Your task to perform on an android device: Add "logitech g pro" to the cart on bestbuy.com, then select checkout. Image 0: 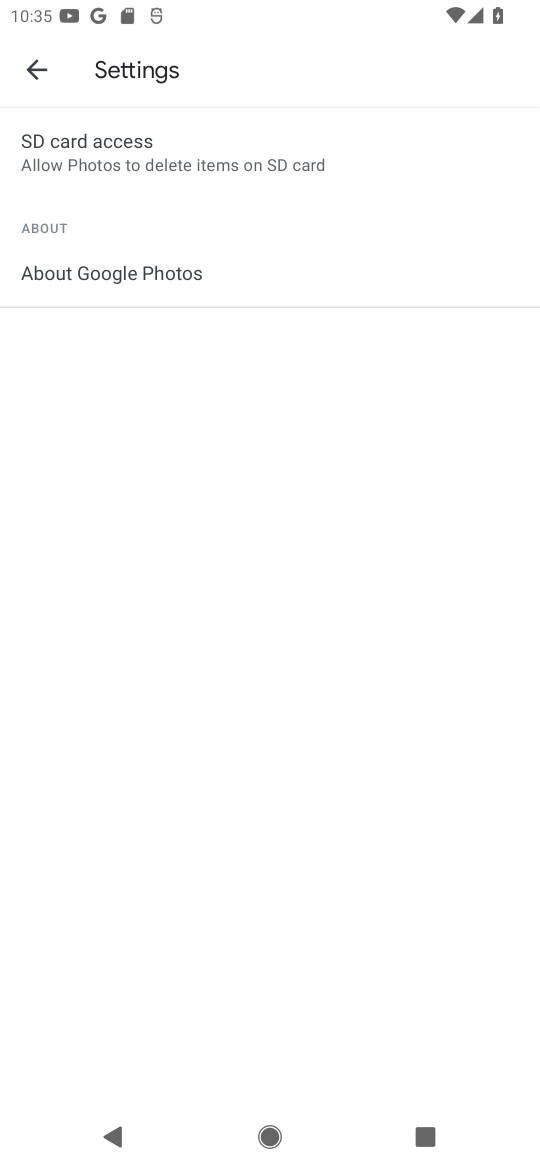
Step 0: press home button
Your task to perform on an android device: Add "logitech g pro" to the cart on bestbuy.com, then select checkout. Image 1: 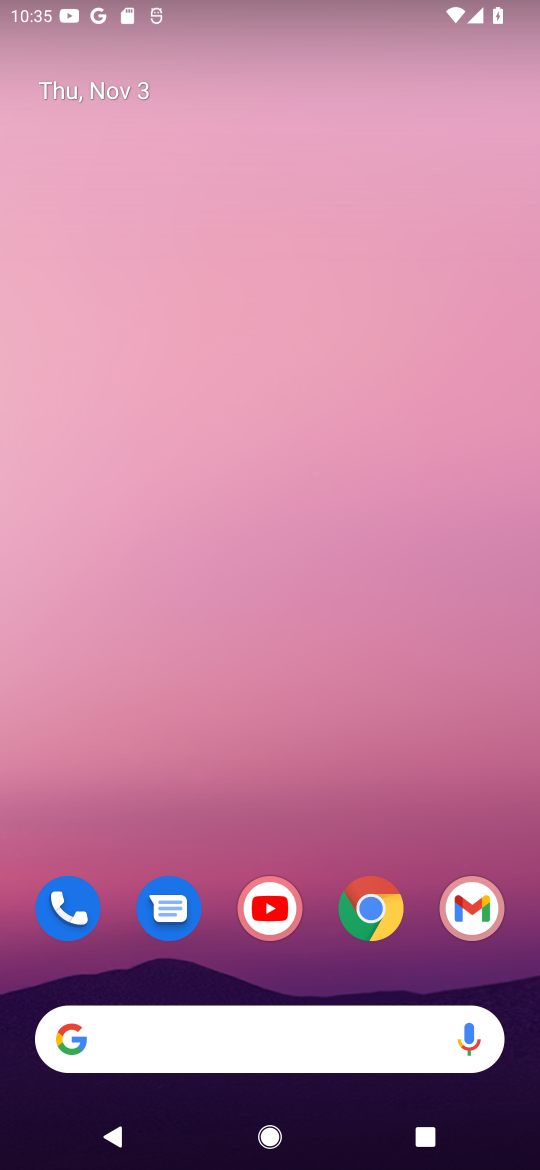
Step 1: click (364, 913)
Your task to perform on an android device: Add "logitech g pro" to the cart on bestbuy.com, then select checkout. Image 2: 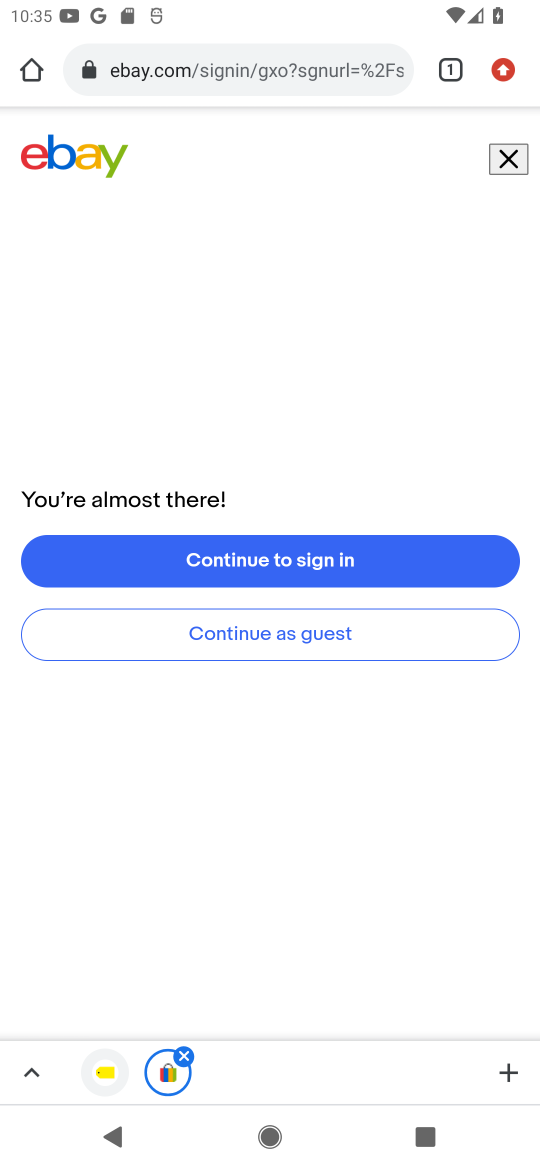
Step 2: click (40, 77)
Your task to perform on an android device: Add "logitech g pro" to the cart on bestbuy.com, then select checkout. Image 3: 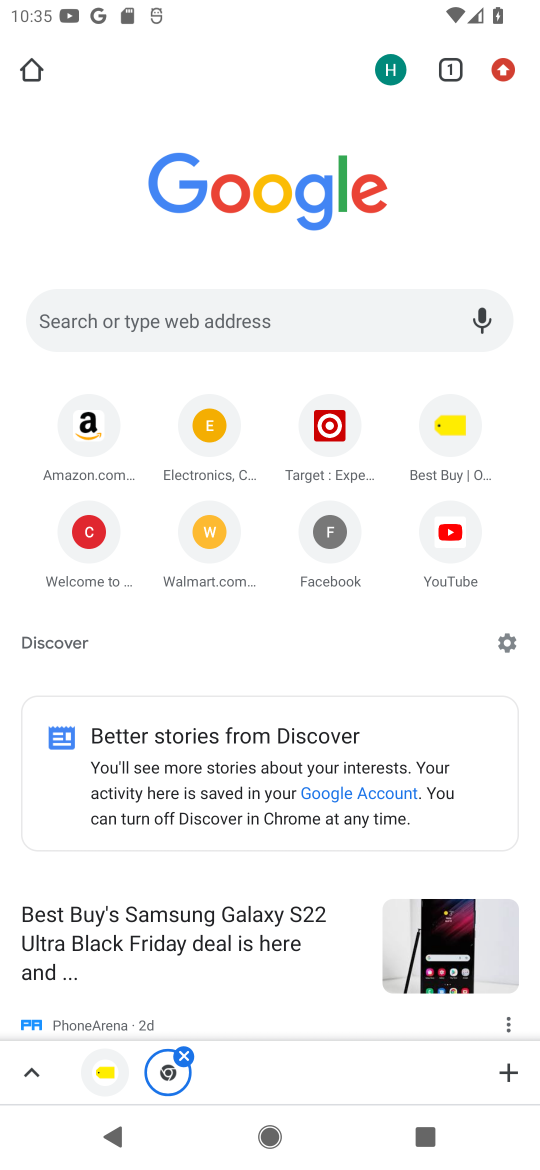
Step 3: click (386, 316)
Your task to perform on an android device: Add "logitech g pro" to the cart on bestbuy.com, then select checkout. Image 4: 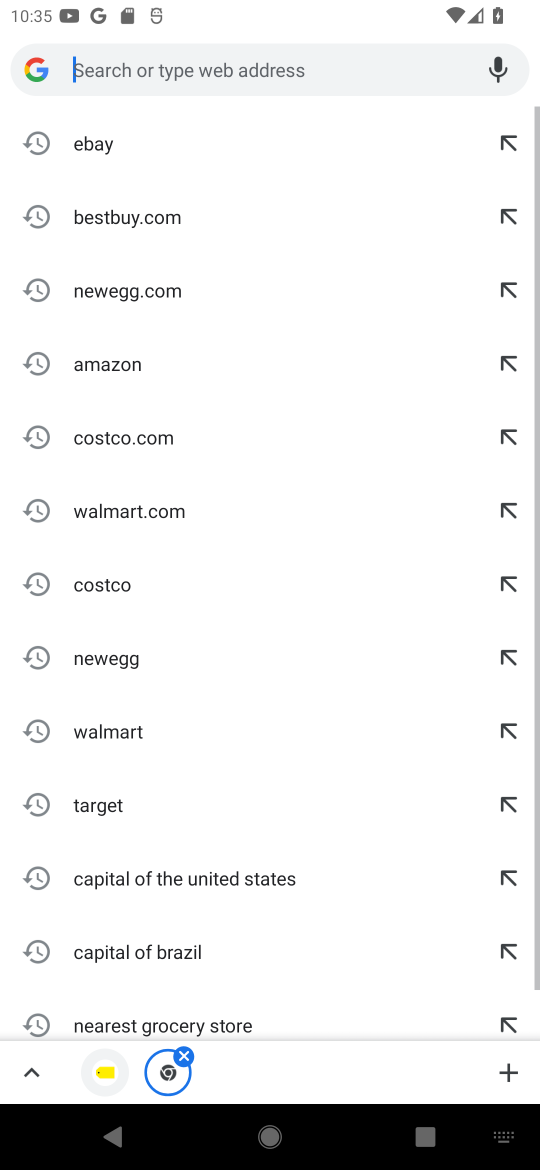
Step 4: click (134, 210)
Your task to perform on an android device: Add "logitech g pro" to the cart on bestbuy.com, then select checkout. Image 5: 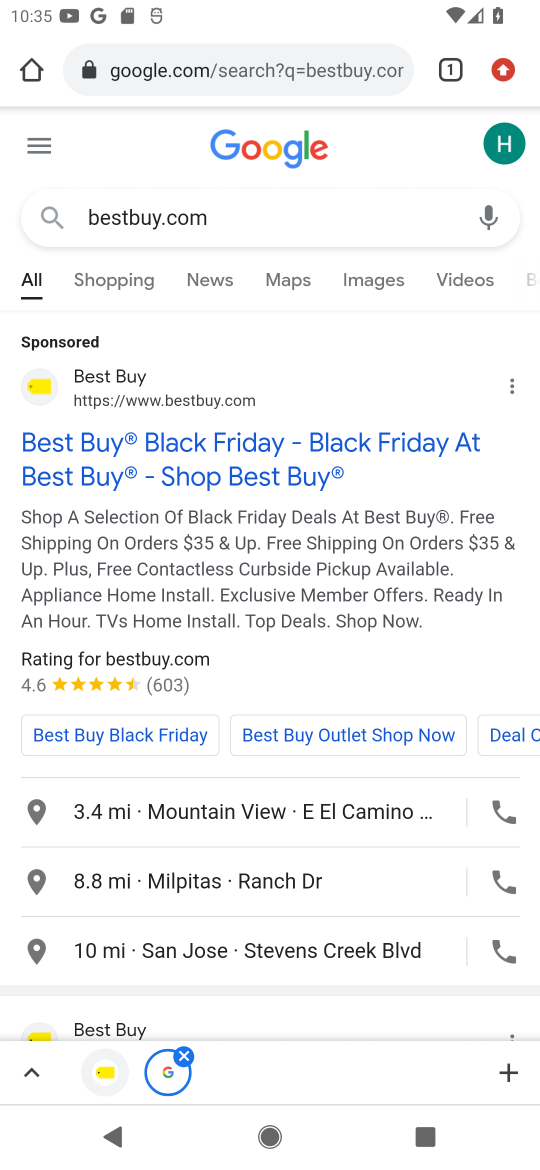
Step 5: click (217, 390)
Your task to perform on an android device: Add "logitech g pro" to the cart on bestbuy.com, then select checkout. Image 6: 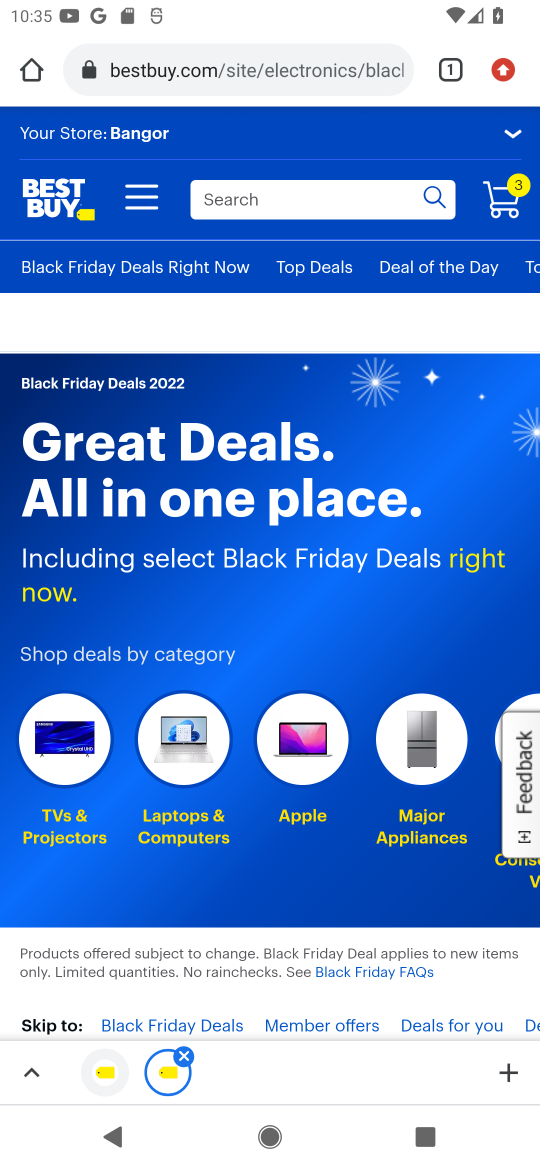
Step 6: click (366, 190)
Your task to perform on an android device: Add "logitech g pro" to the cart on bestbuy.com, then select checkout. Image 7: 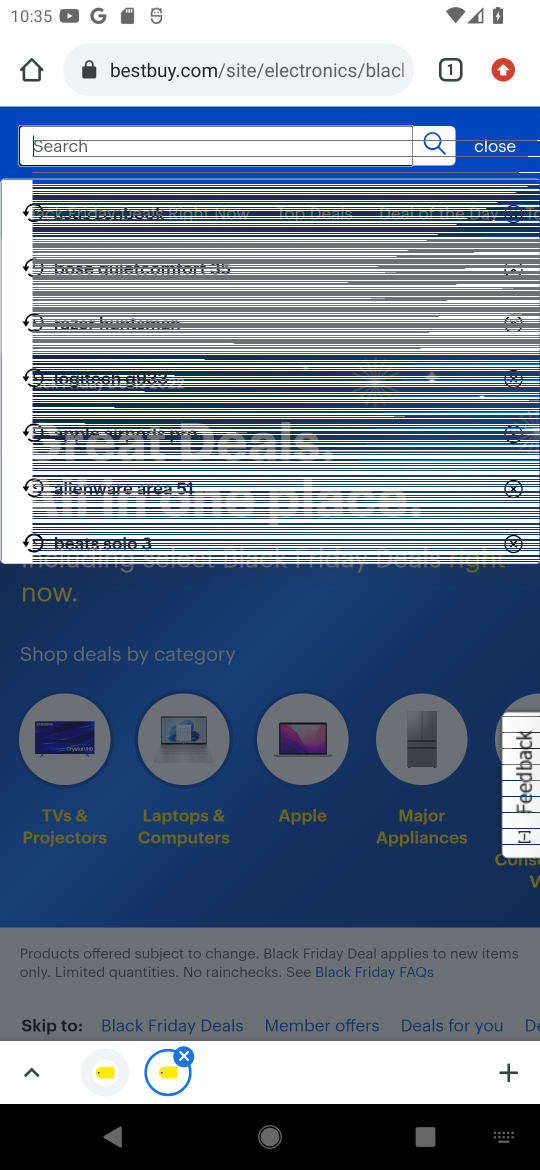
Step 7: press enter
Your task to perform on an android device: Add "logitech g pro" to the cart on bestbuy.com, then select checkout. Image 8: 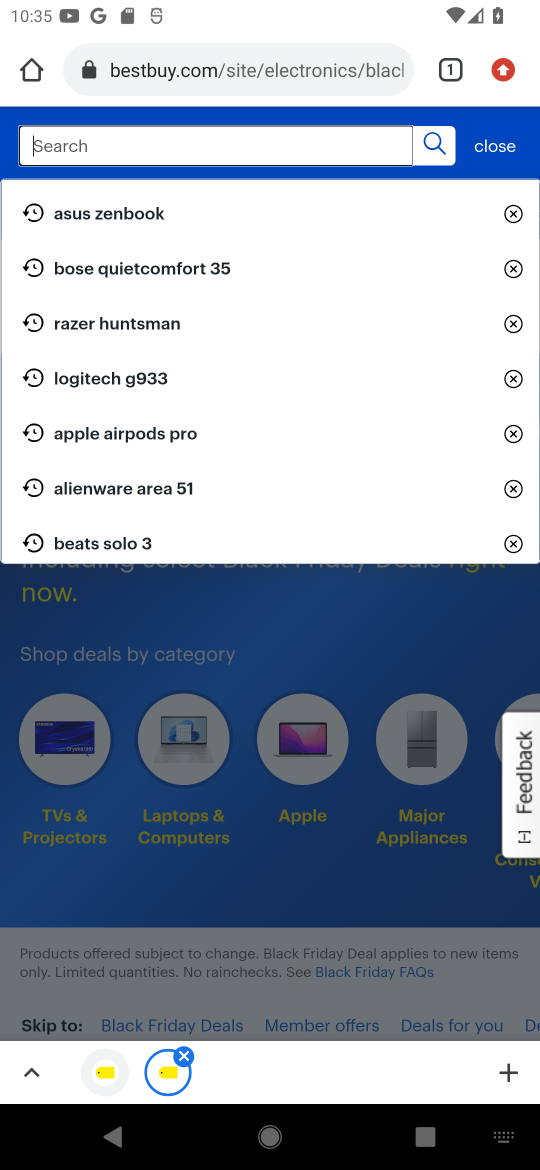
Step 8: type "logitech g pro"
Your task to perform on an android device: Add "logitech g pro" to the cart on bestbuy.com, then select checkout. Image 9: 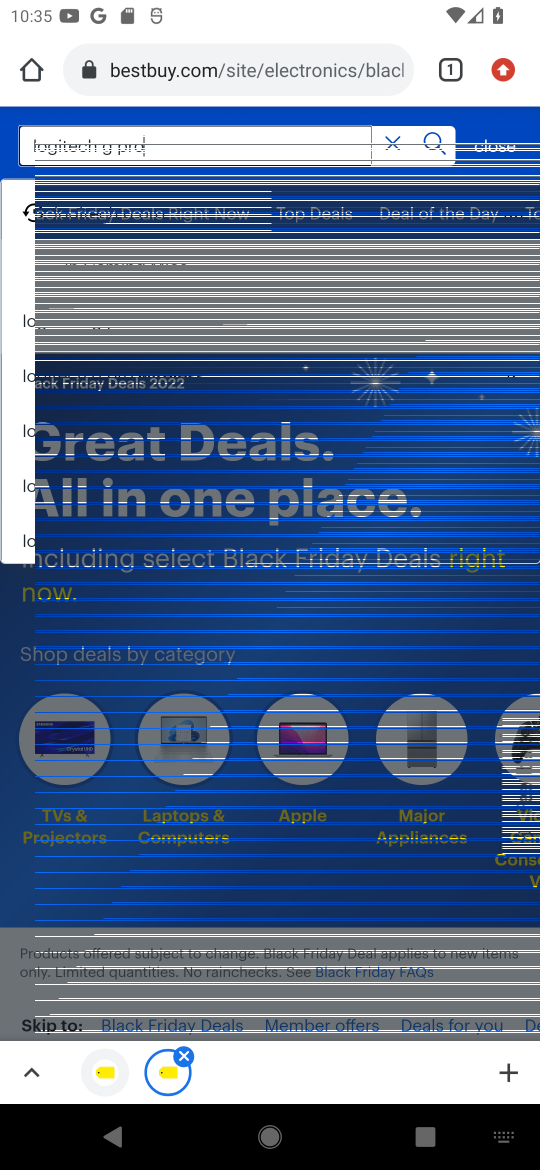
Step 9: click (153, 209)
Your task to perform on an android device: Add "logitech g pro" to the cart on bestbuy.com, then select checkout. Image 10: 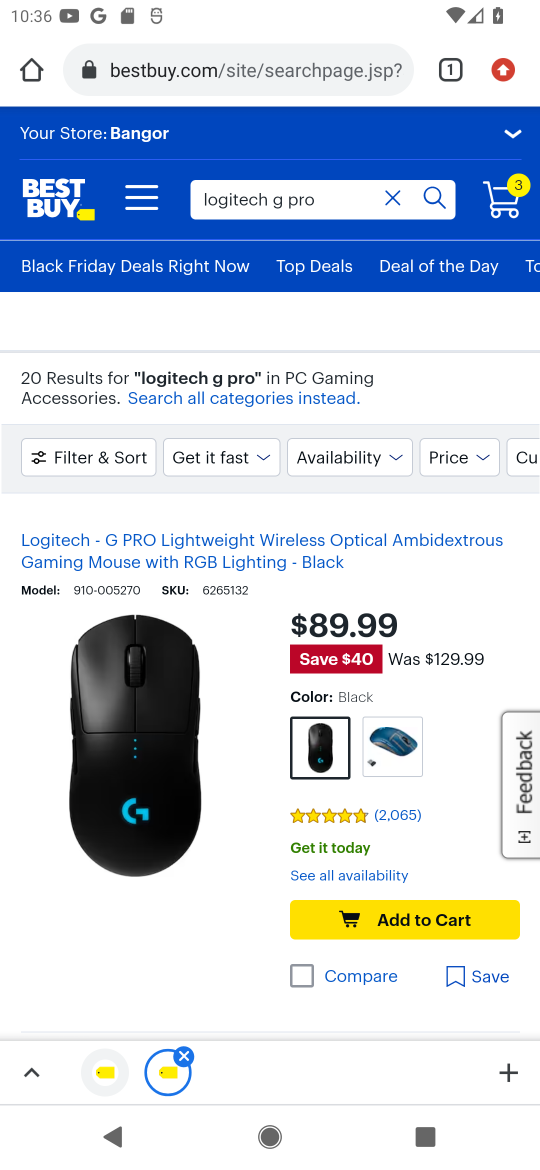
Step 10: click (153, 743)
Your task to perform on an android device: Add "logitech g pro" to the cart on bestbuy.com, then select checkout. Image 11: 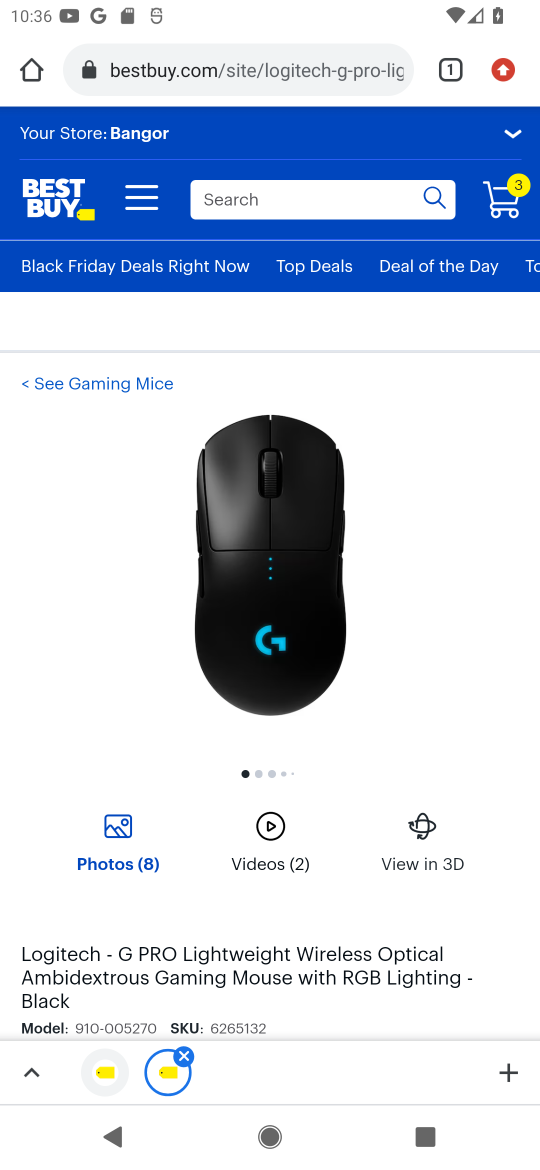
Step 11: drag from (414, 804) to (370, 406)
Your task to perform on an android device: Add "logitech g pro" to the cart on bestbuy.com, then select checkout. Image 12: 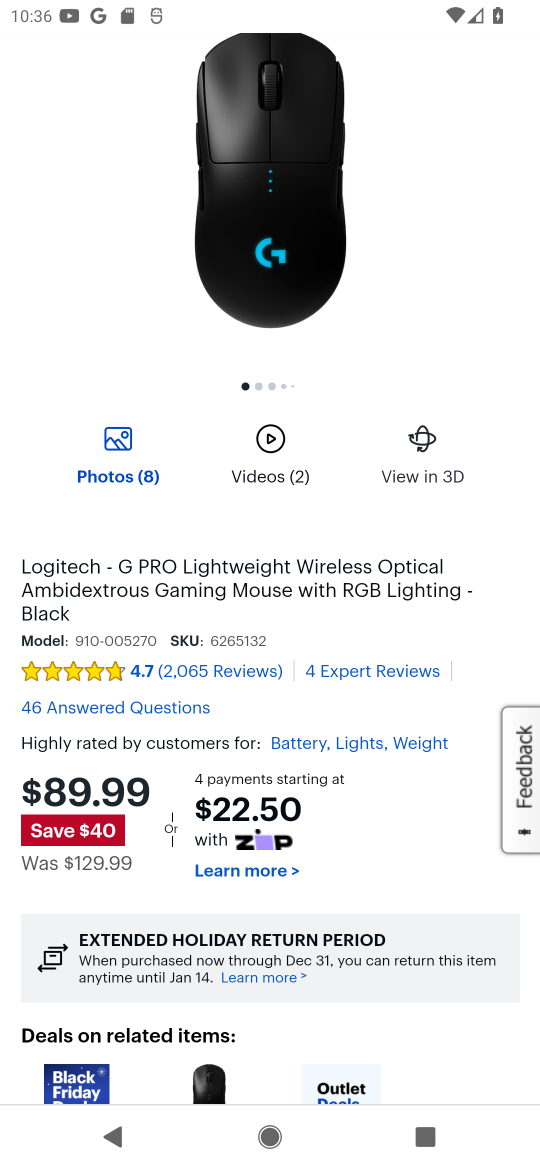
Step 12: drag from (335, 834) to (325, 344)
Your task to perform on an android device: Add "logitech g pro" to the cart on bestbuy.com, then select checkout. Image 13: 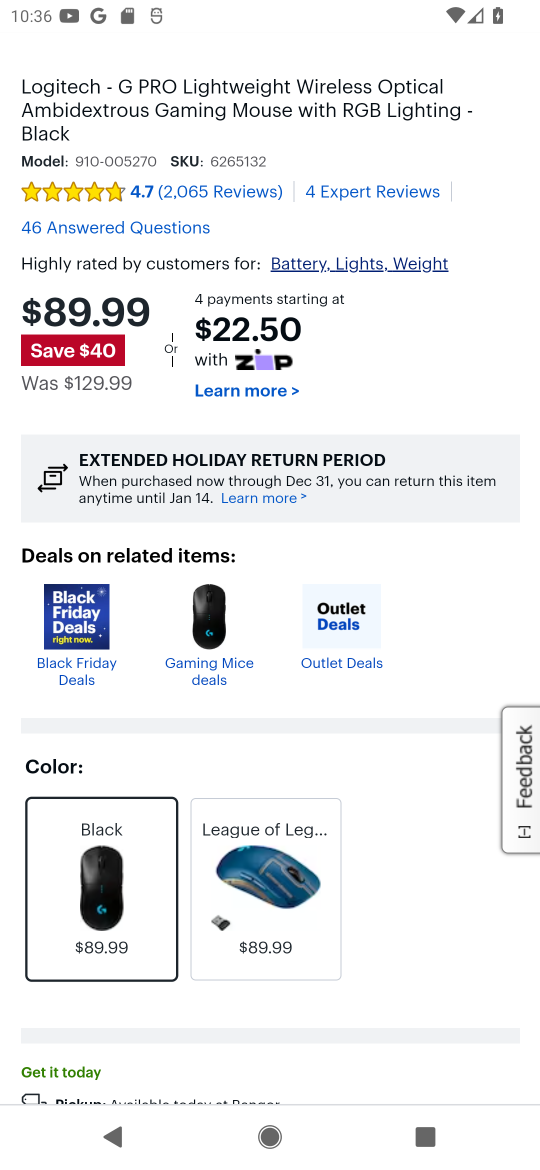
Step 13: drag from (361, 799) to (389, 328)
Your task to perform on an android device: Add "logitech g pro" to the cart on bestbuy.com, then select checkout. Image 14: 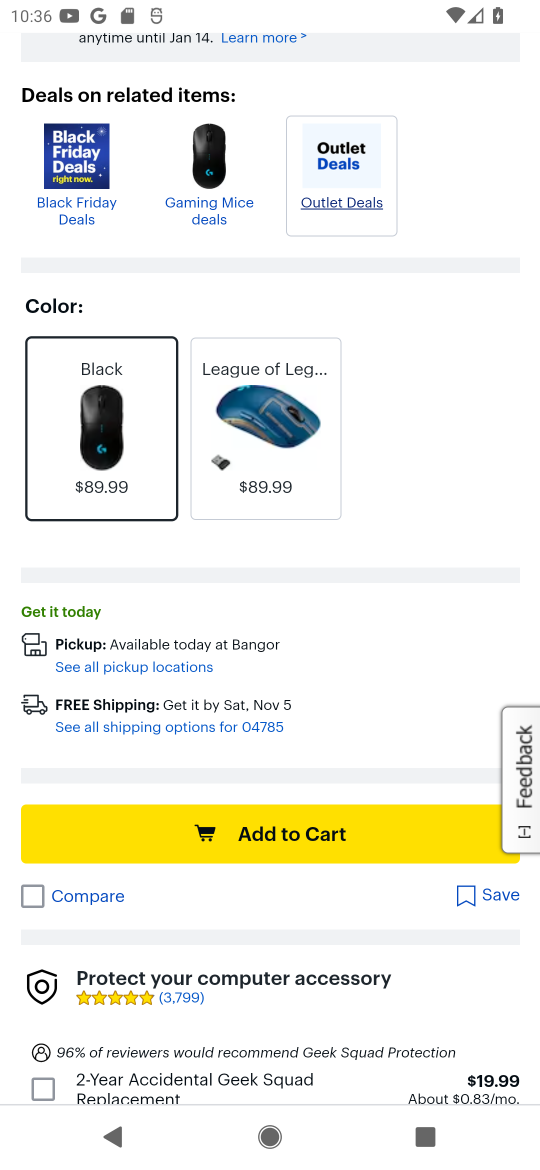
Step 14: click (355, 820)
Your task to perform on an android device: Add "logitech g pro" to the cart on bestbuy.com, then select checkout. Image 15: 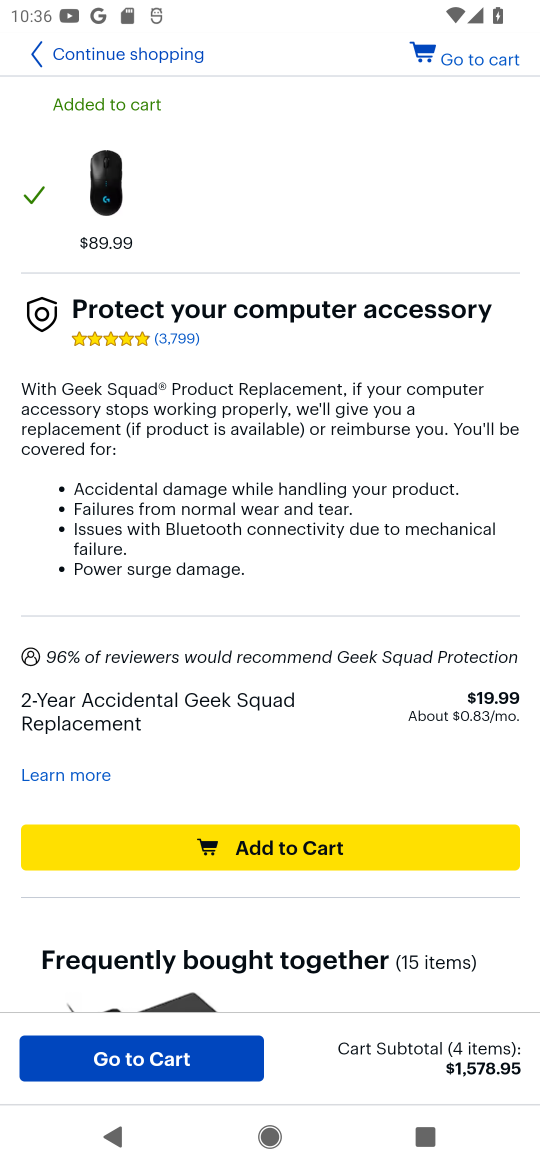
Step 15: click (174, 1039)
Your task to perform on an android device: Add "logitech g pro" to the cart on bestbuy.com, then select checkout. Image 16: 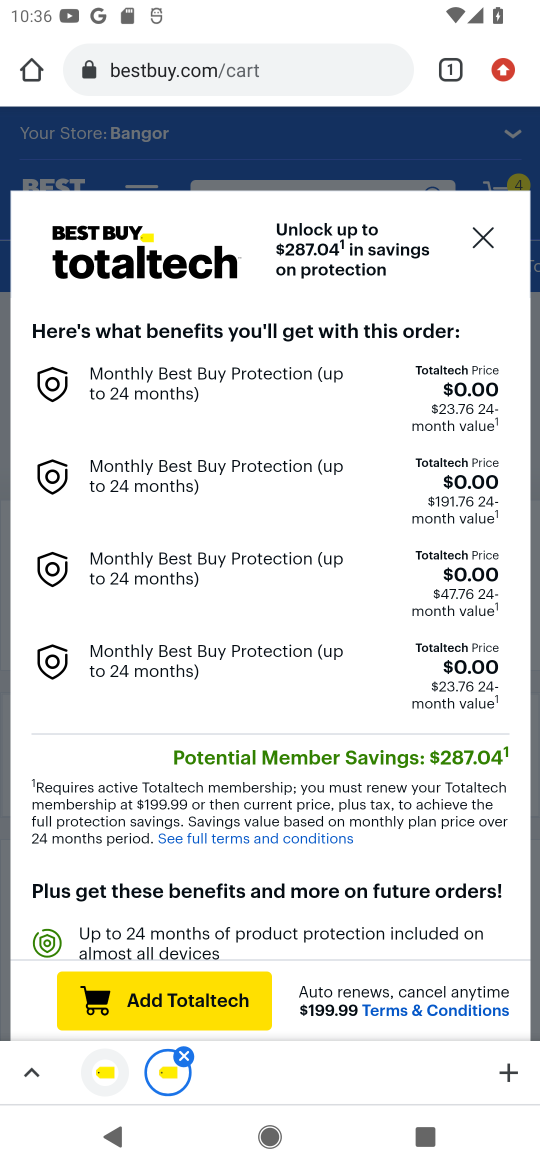
Step 16: click (484, 230)
Your task to perform on an android device: Add "logitech g pro" to the cart on bestbuy.com, then select checkout. Image 17: 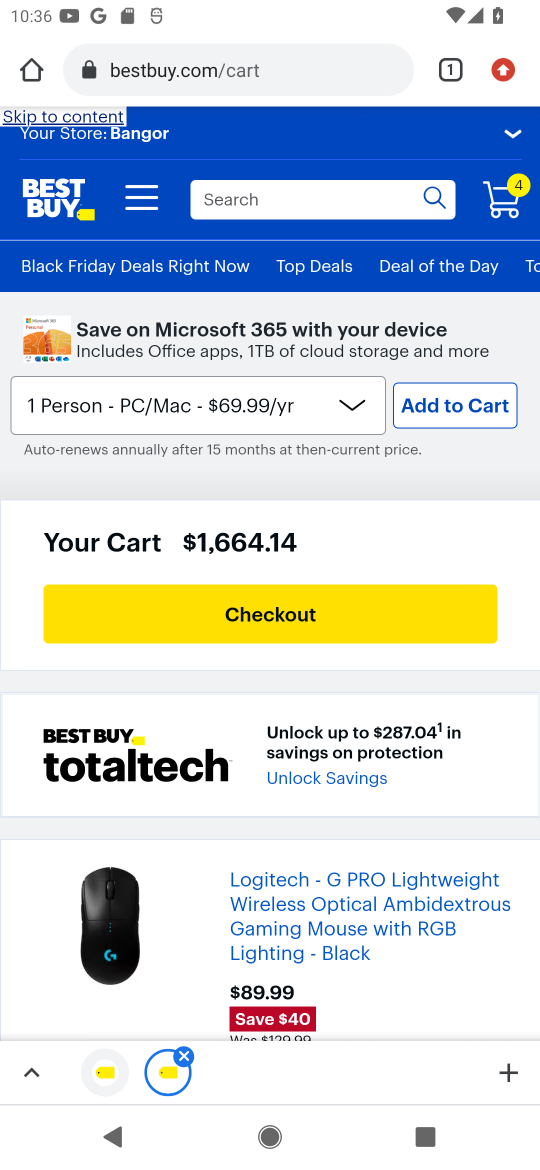
Step 17: click (256, 605)
Your task to perform on an android device: Add "logitech g pro" to the cart on bestbuy.com, then select checkout. Image 18: 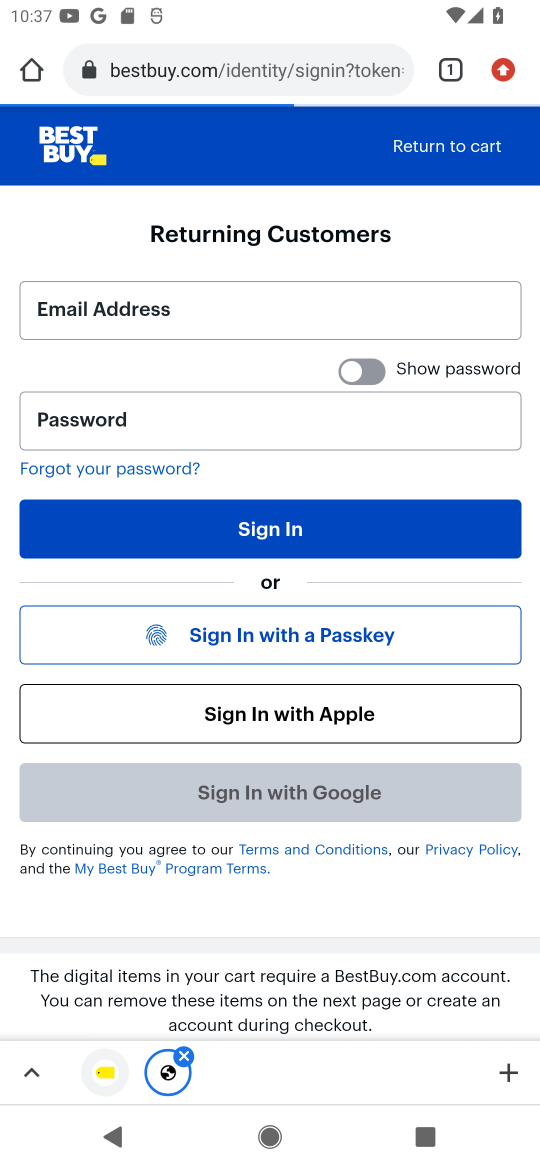
Step 18: task complete